Your task to perform on an android device: Show me productivity apps on the Play Store Image 0: 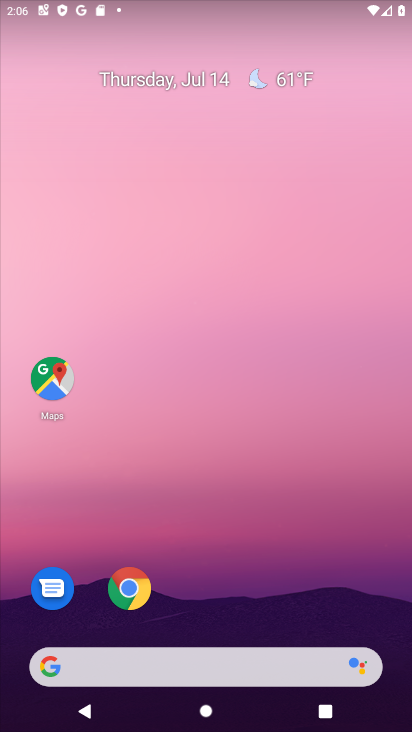
Step 0: drag from (259, 622) to (239, 85)
Your task to perform on an android device: Show me productivity apps on the Play Store Image 1: 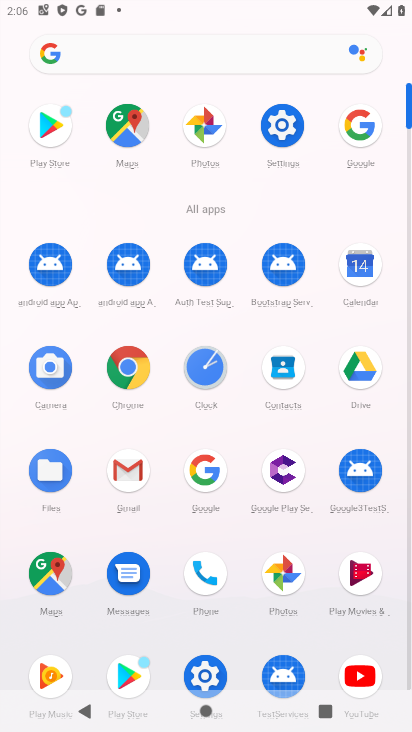
Step 1: click (135, 670)
Your task to perform on an android device: Show me productivity apps on the Play Store Image 2: 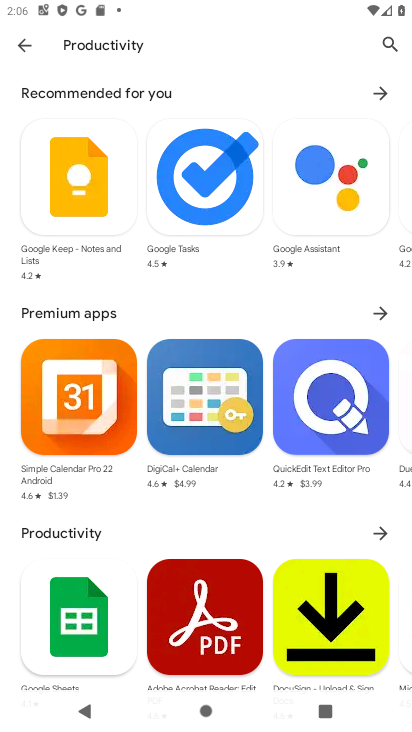
Step 2: task complete